Your task to perform on an android device: find snoozed emails in the gmail app Image 0: 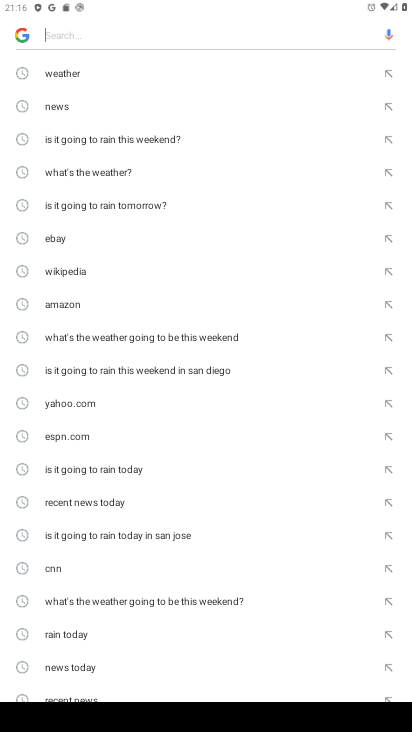
Step 0: press home button
Your task to perform on an android device: find snoozed emails in the gmail app Image 1: 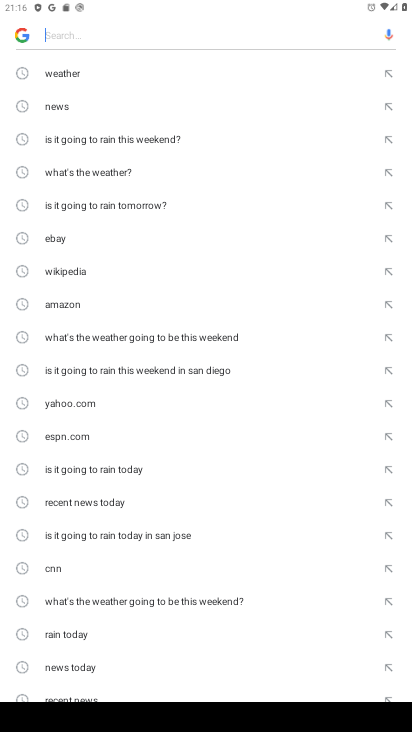
Step 1: drag from (279, 653) to (308, 77)
Your task to perform on an android device: find snoozed emails in the gmail app Image 2: 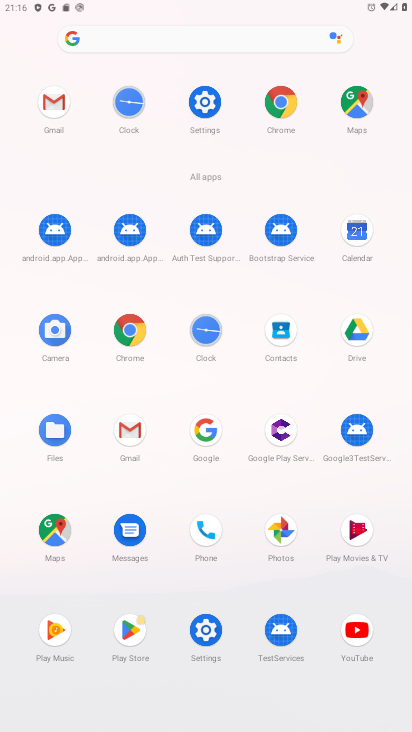
Step 2: click (123, 454)
Your task to perform on an android device: find snoozed emails in the gmail app Image 3: 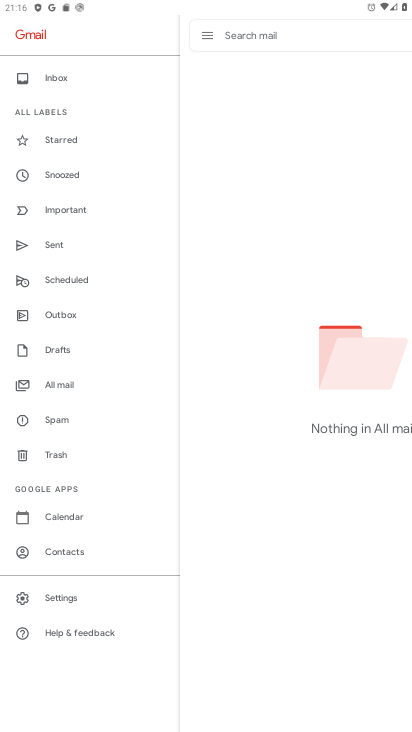
Step 3: click (87, 165)
Your task to perform on an android device: find snoozed emails in the gmail app Image 4: 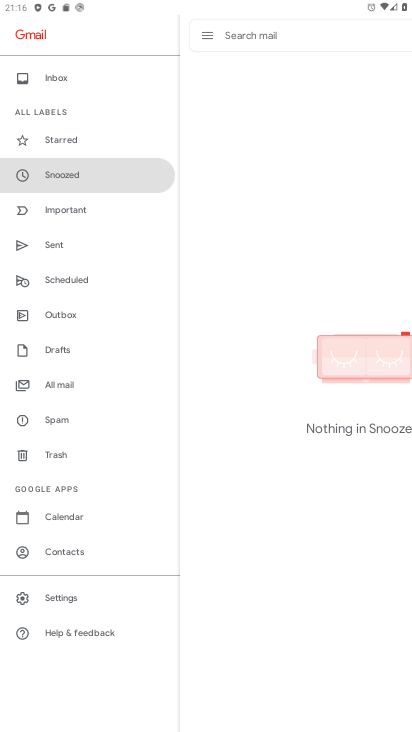
Step 4: task complete